Your task to perform on an android device: Open settings Image 0: 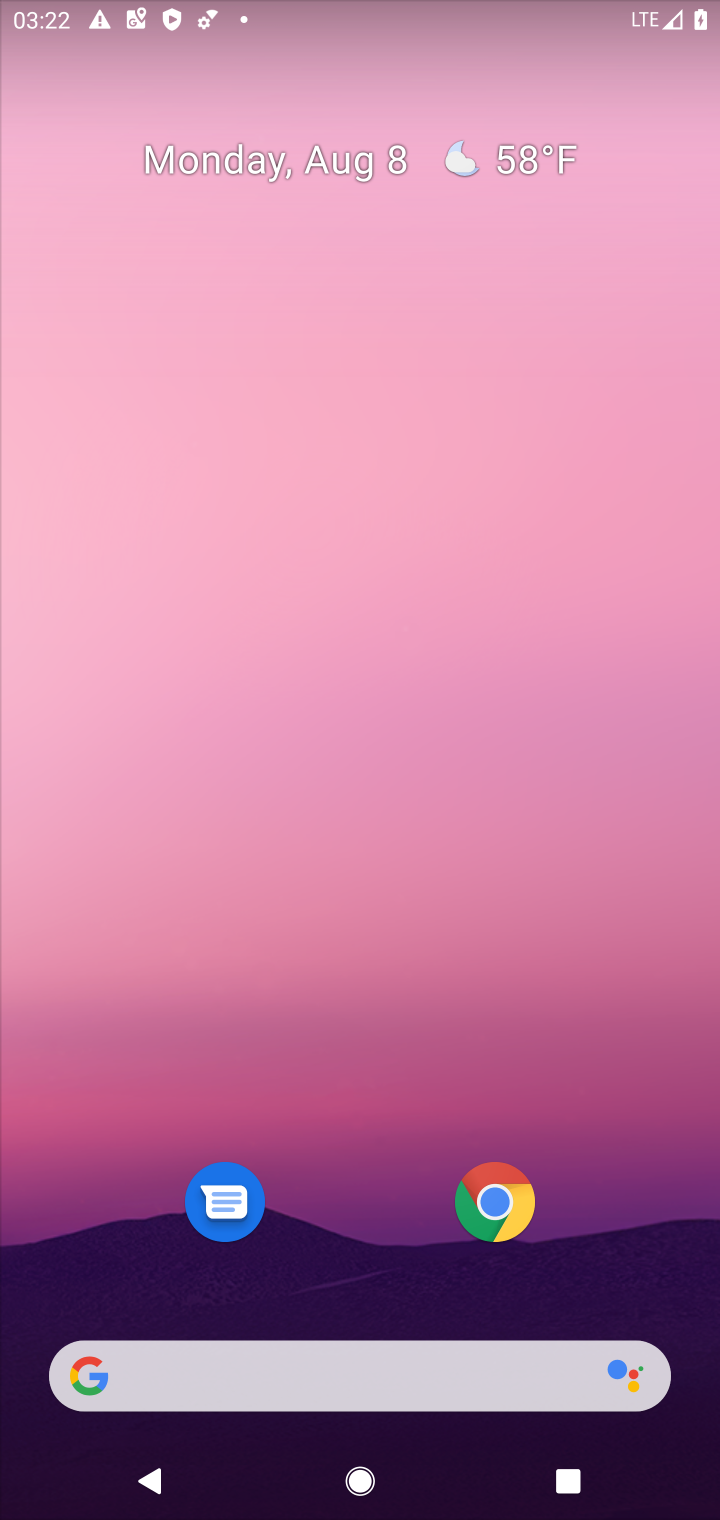
Step 0: press back button
Your task to perform on an android device: Open settings Image 1: 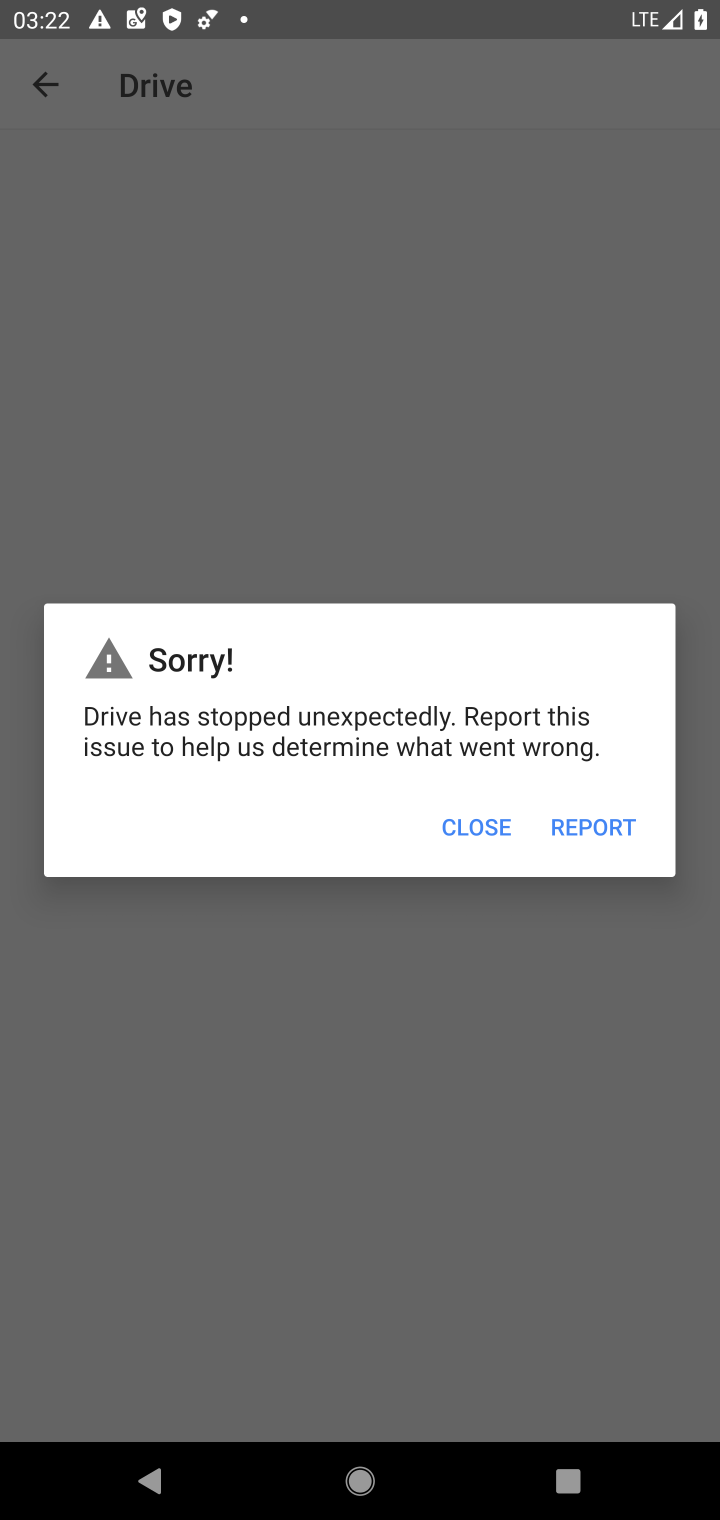
Step 1: press back button
Your task to perform on an android device: Open settings Image 2: 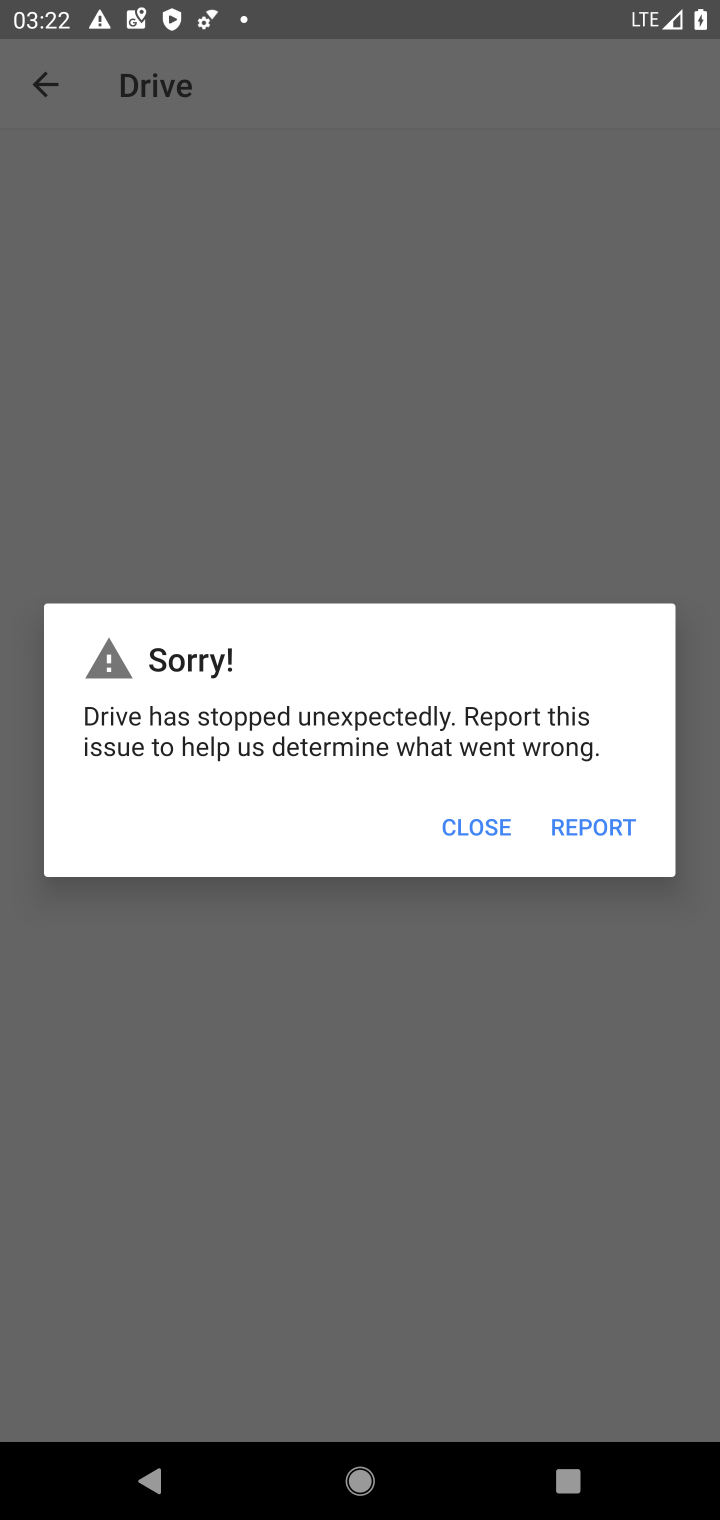
Step 2: press home button
Your task to perform on an android device: Open settings Image 3: 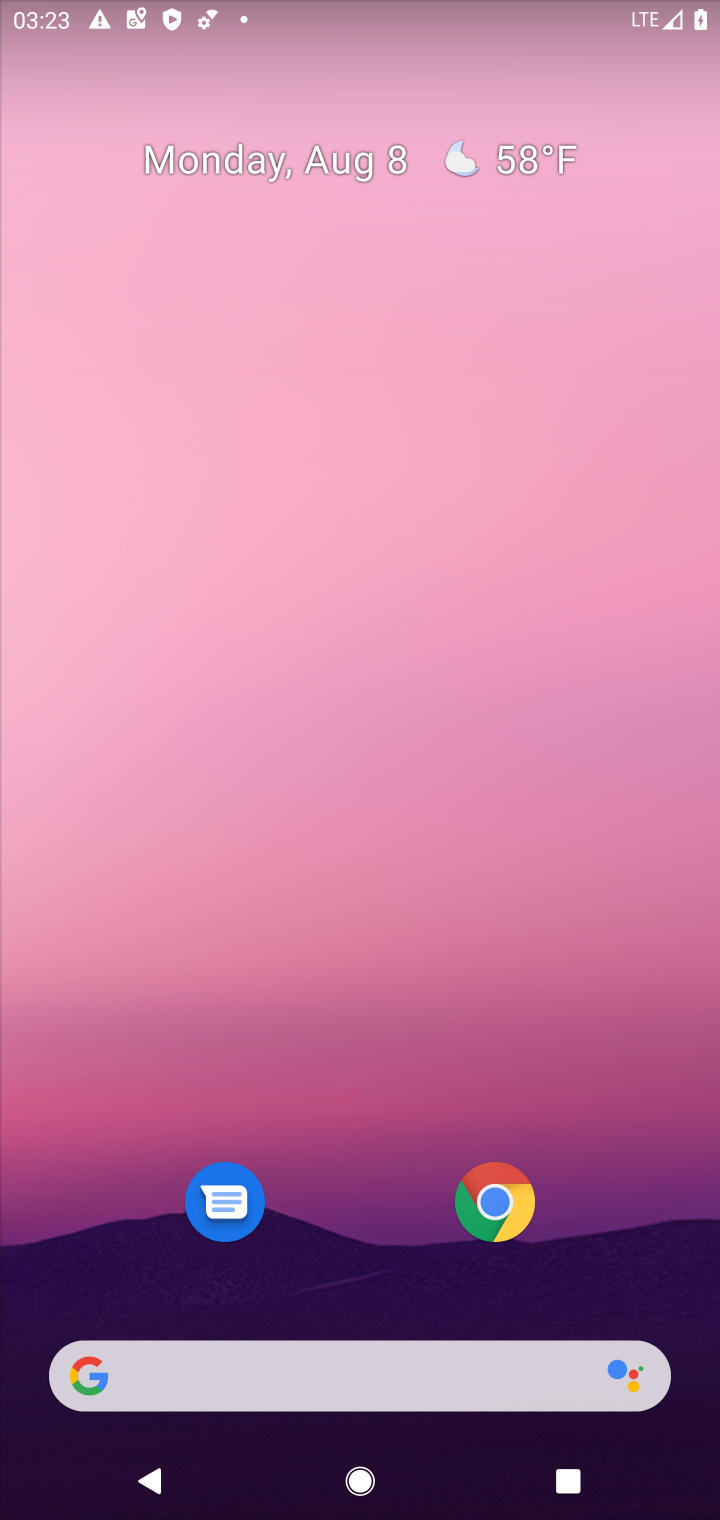
Step 3: drag from (343, 1259) to (423, 162)
Your task to perform on an android device: Open settings Image 4: 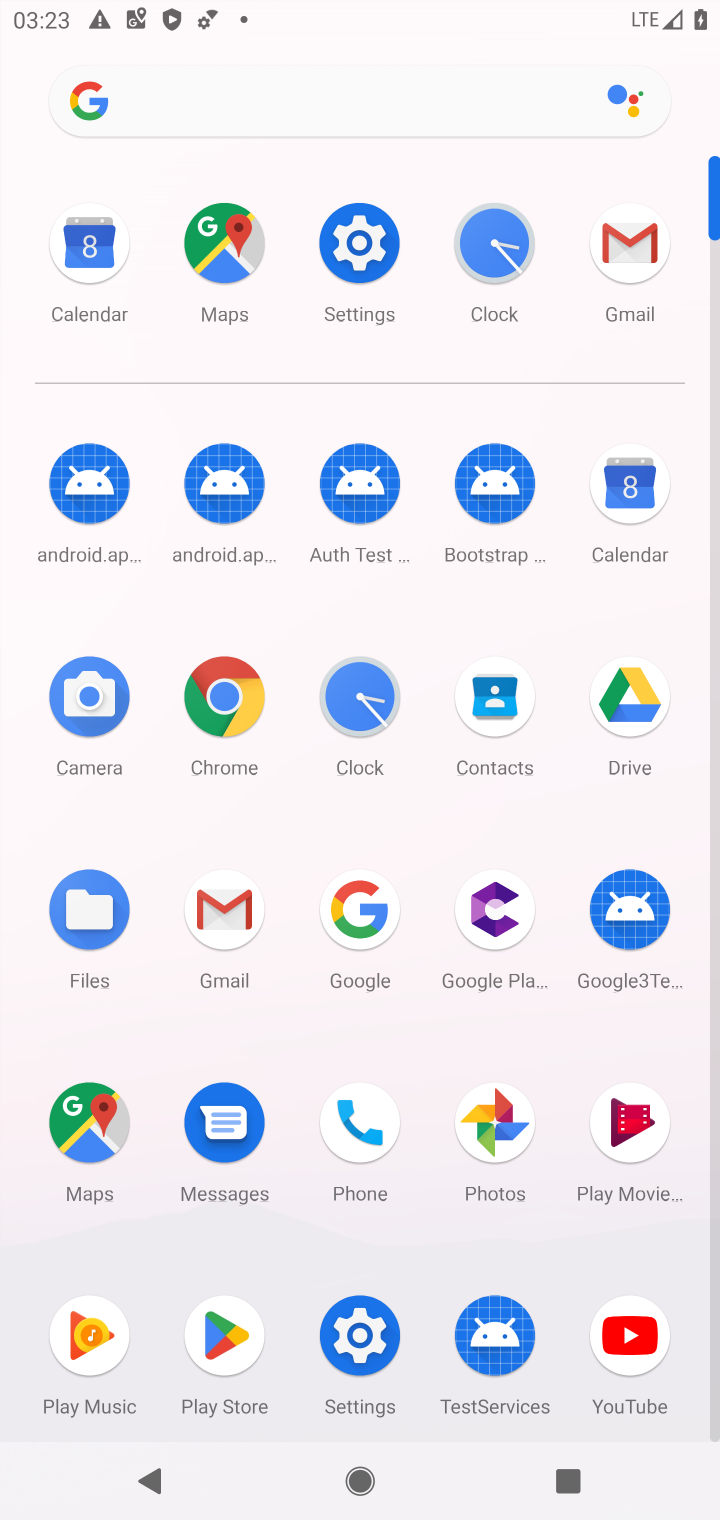
Step 4: click (361, 251)
Your task to perform on an android device: Open settings Image 5: 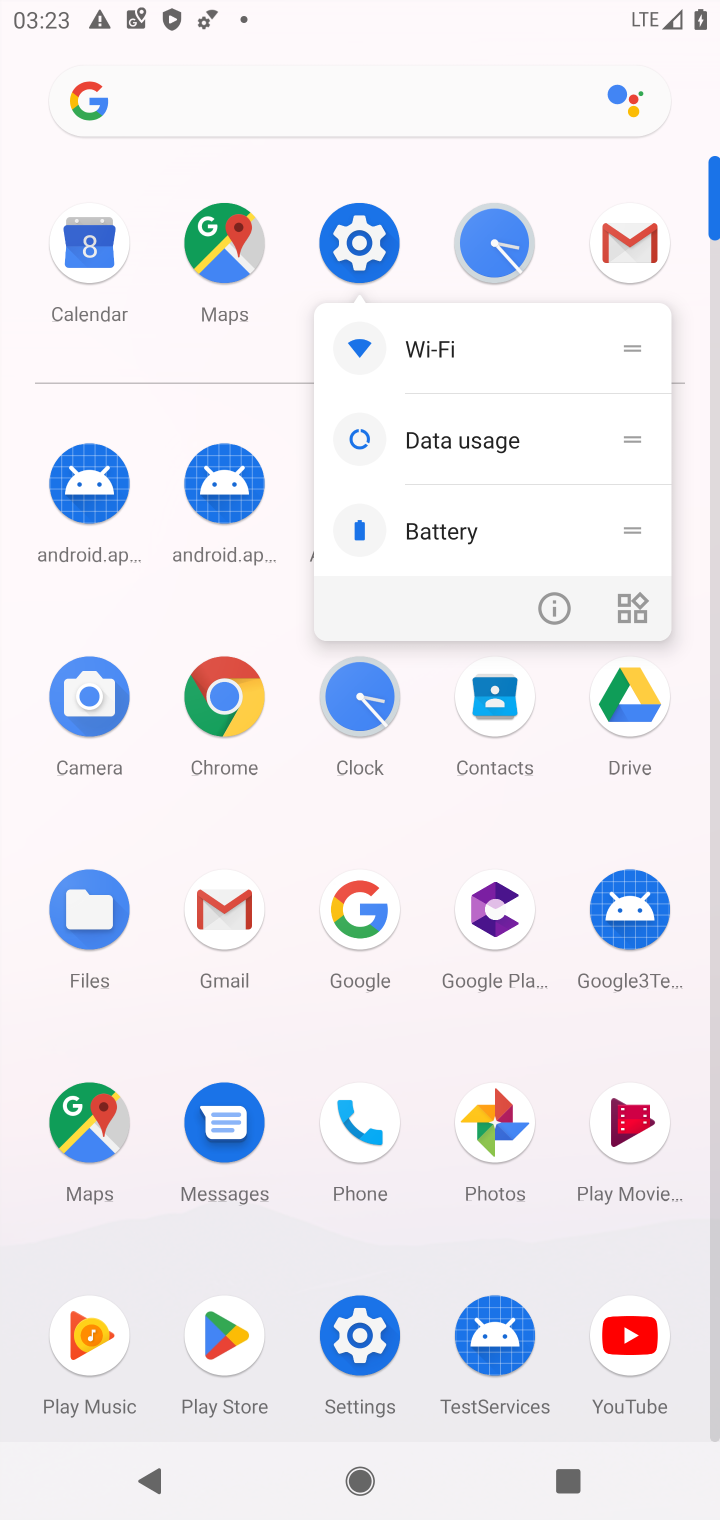
Step 5: click (361, 235)
Your task to perform on an android device: Open settings Image 6: 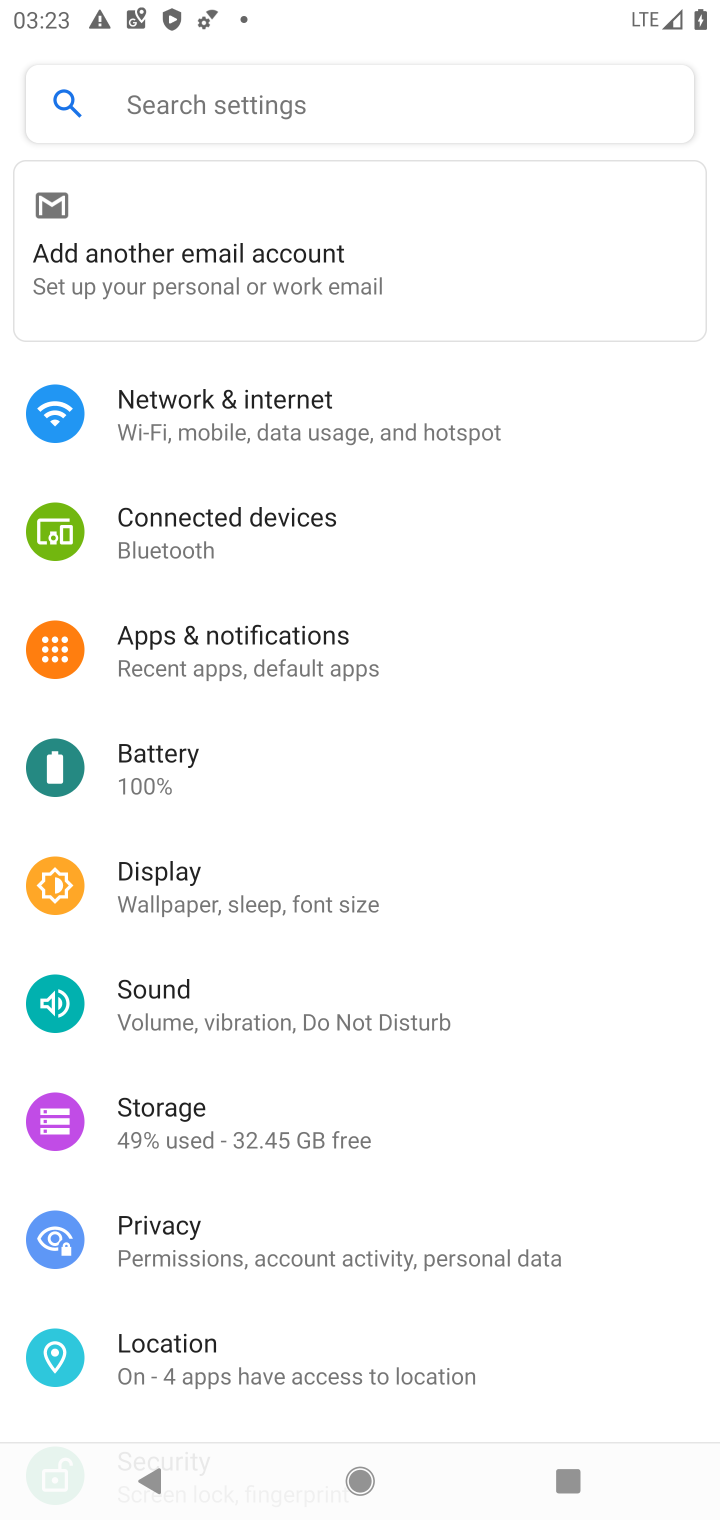
Step 6: task complete